Your task to perform on an android device: Go to CNN.com Image 0: 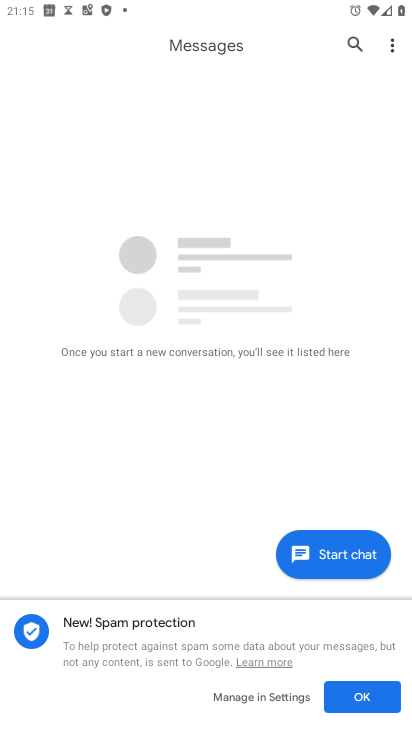
Step 0: click (39, 399)
Your task to perform on an android device: Go to CNN.com Image 1: 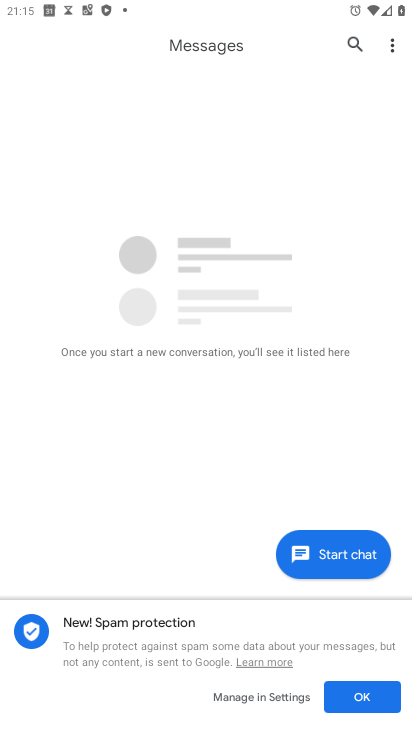
Step 1: press home button
Your task to perform on an android device: Go to CNN.com Image 2: 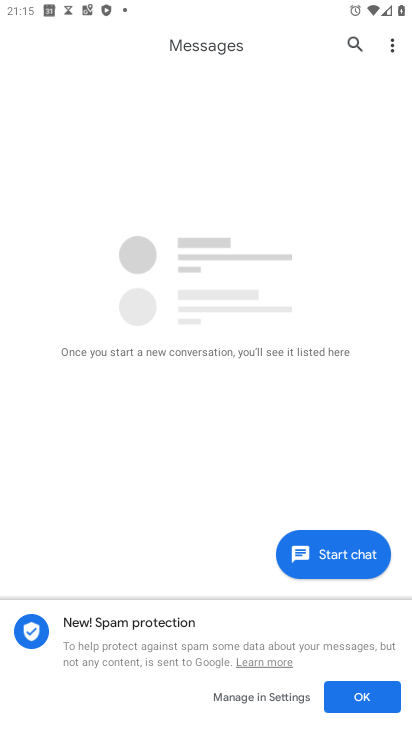
Step 2: press home button
Your task to perform on an android device: Go to CNN.com Image 3: 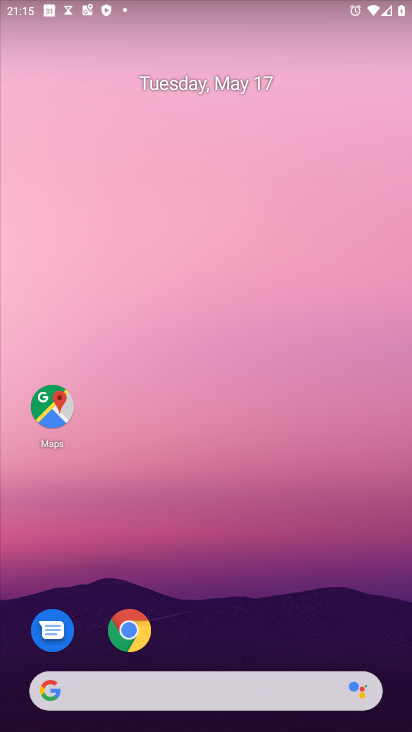
Step 3: click (139, 627)
Your task to perform on an android device: Go to CNN.com Image 4: 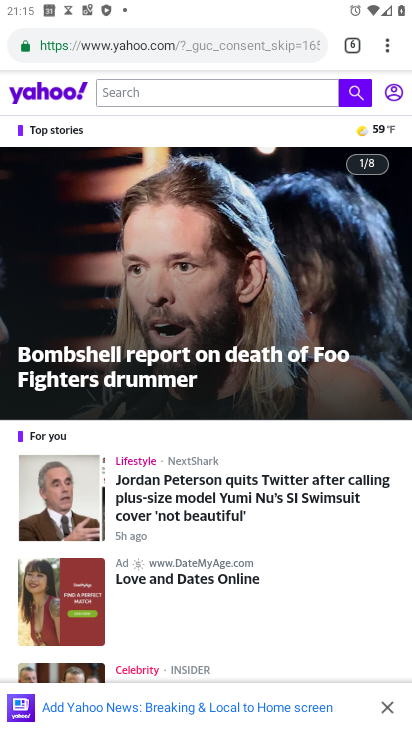
Step 4: click (349, 50)
Your task to perform on an android device: Go to CNN.com Image 5: 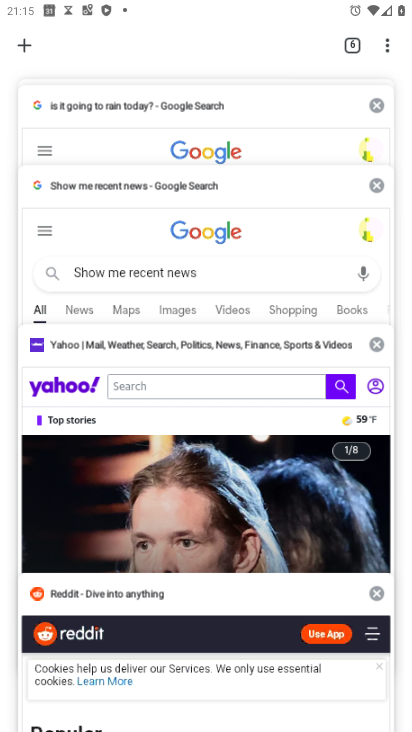
Step 5: drag from (110, 618) to (121, 187)
Your task to perform on an android device: Go to CNN.com Image 6: 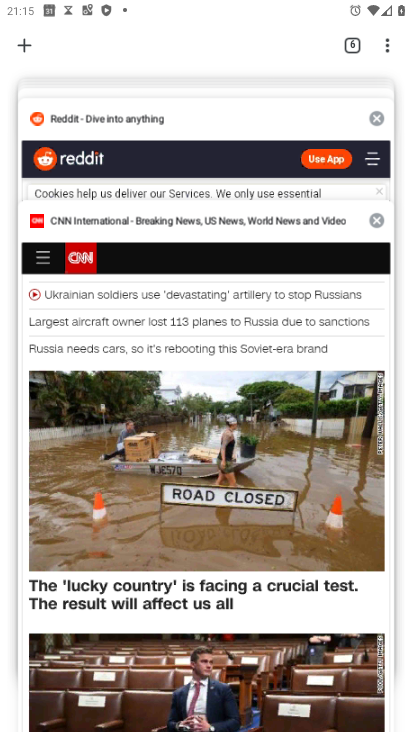
Step 6: click (78, 463)
Your task to perform on an android device: Go to CNN.com Image 7: 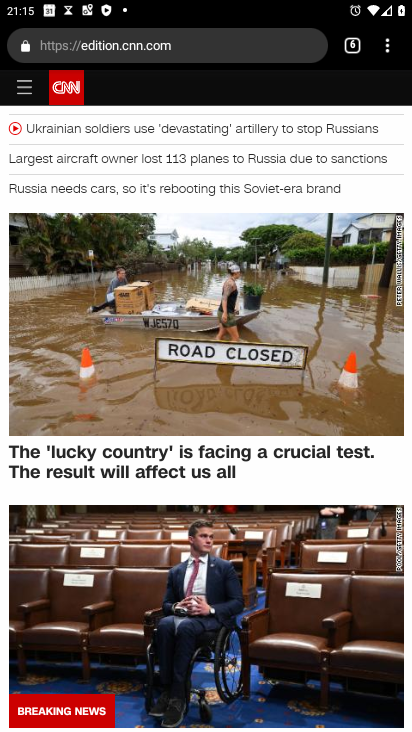
Step 7: task complete